Your task to perform on an android device: Open Wikipedia Image 0: 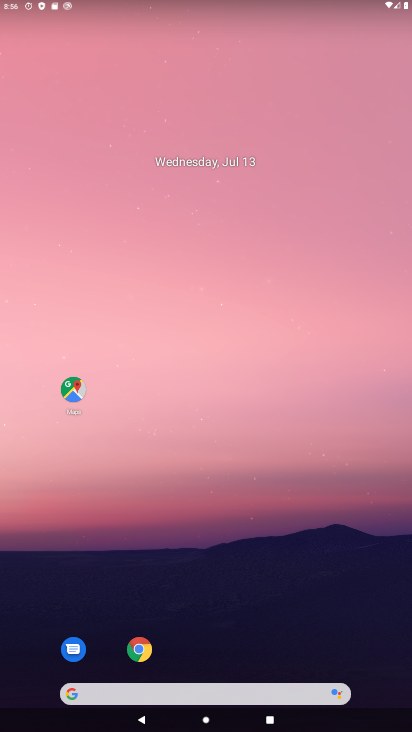
Step 0: drag from (270, 703) to (255, 17)
Your task to perform on an android device: Open Wikipedia Image 1: 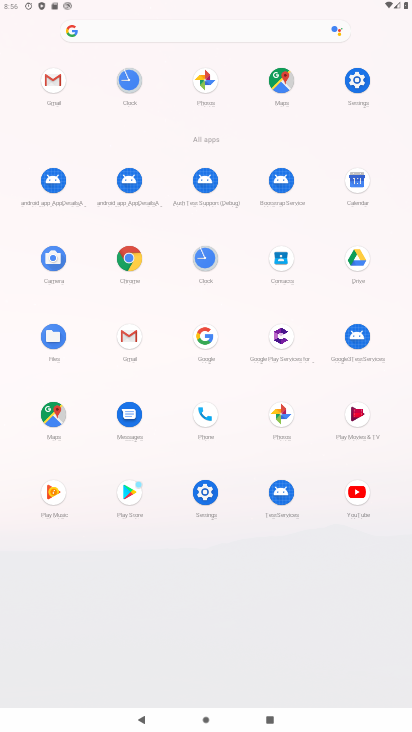
Step 1: click (115, 255)
Your task to perform on an android device: Open Wikipedia Image 2: 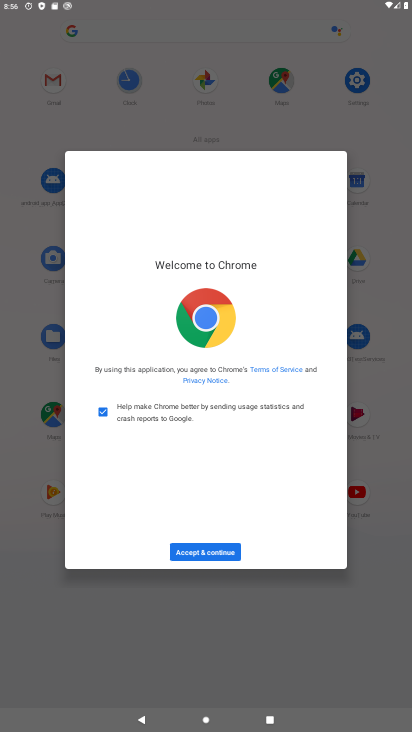
Step 2: click (177, 555)
Your task to perform on an android device: Open Wikipedia Image 3: 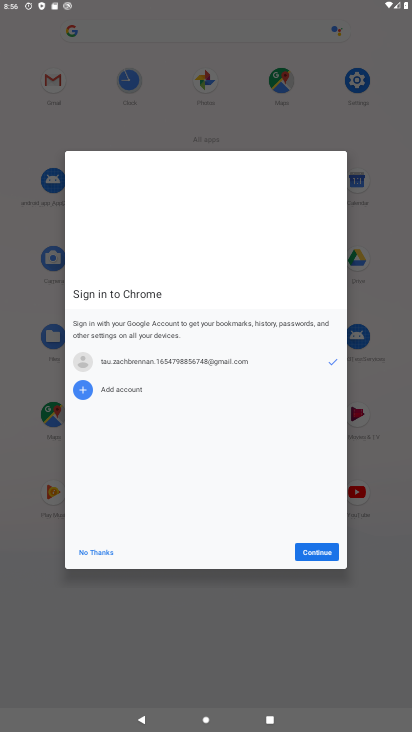
Step 3: click (100, 551)
Your task to perform on an android device: Open Wikipedia Image 4: 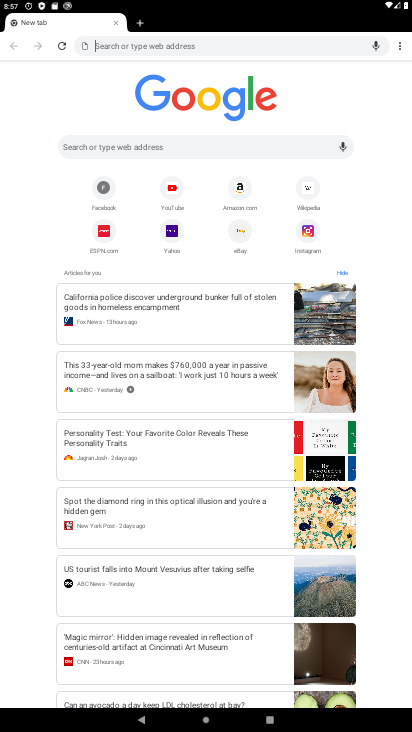
Step 4: click (315, 196)
Your task to perform on an android device: Open Wikipedia Image 5: 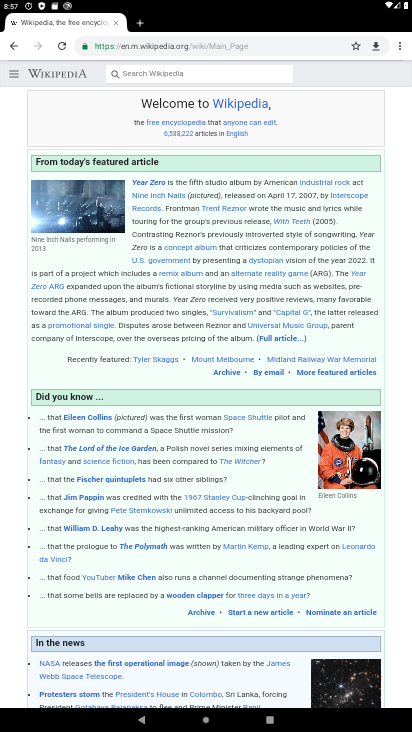
Step 5: task complete